Your task to perform on an android device: change timer sound Image 0: 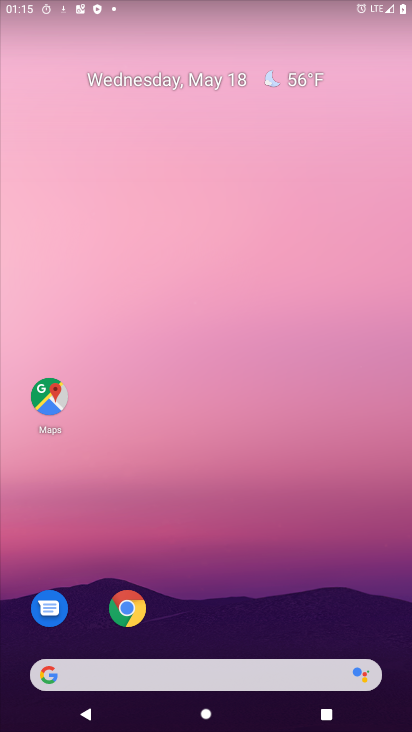
Step 0: drag from (271, 692) to (335, 160)
Your task to perform on an android device: change timer sound Image 1: 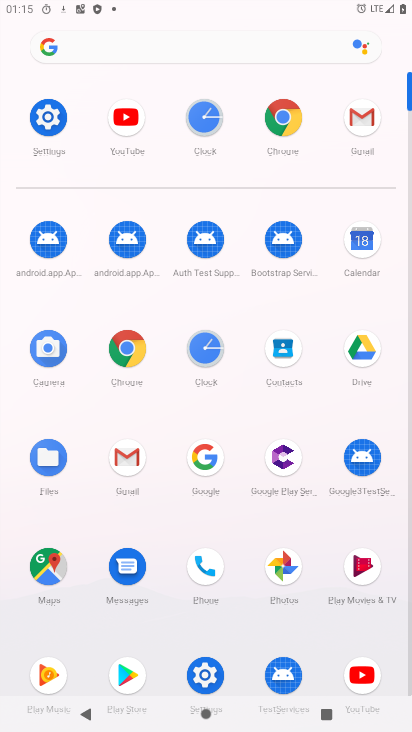
Step 1: click (216, 348)
Your task to perform on an android device: change timer sound Image 2: 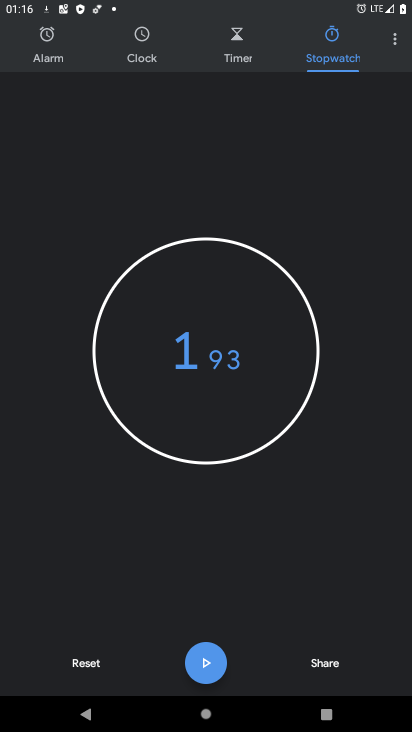
Step 2: click (386, 44)
Your task to perform on an android device: change timer sound Image 3: 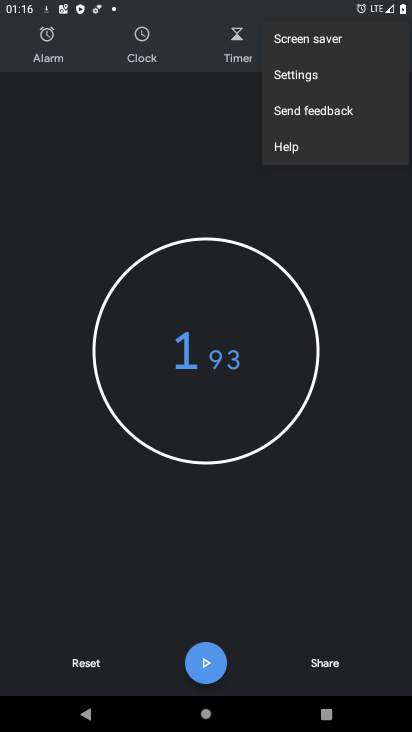
Step 3: click (307, 69)
Your task to perform on an android device: change timer sound Image 4: 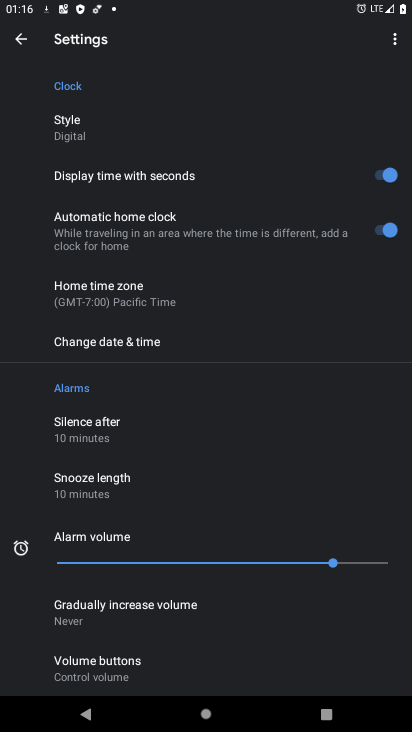
Step 4: drag from (152, 407) to (220, 225)
Your task to perform on an android device: change timer sound Image 5: 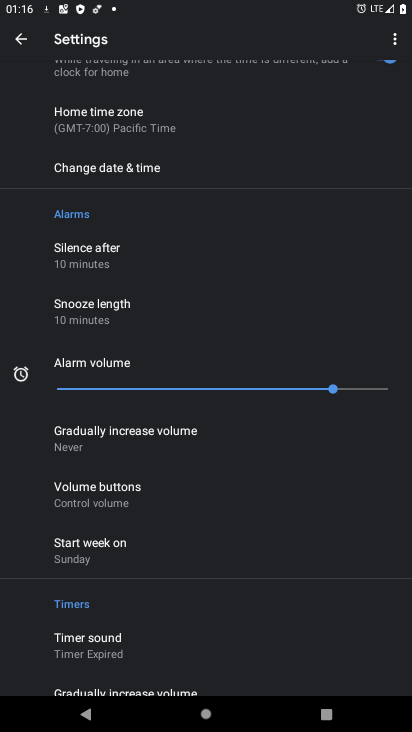
Step 5: drag from (160, 508) to (216, 396)
Your task to perform on an android device: change timer sound Image 6: 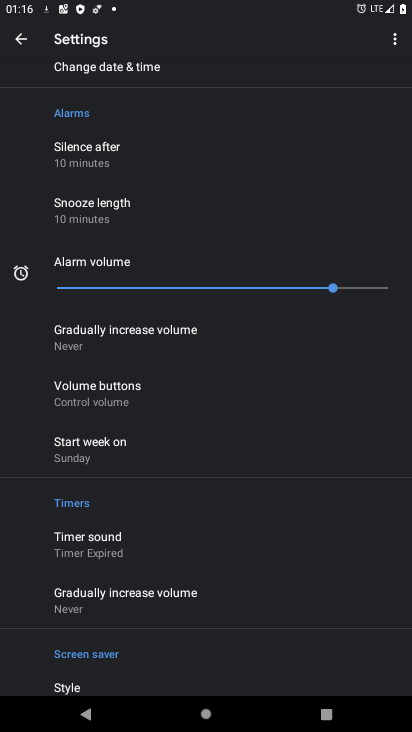
Step 6: click (96, 543)
Your task to perform on an android device: change timer sound Image 7: 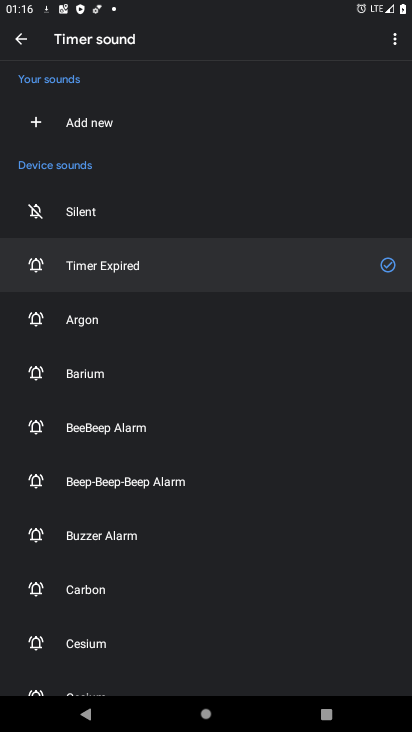
Step 7: click (85, 530)
Your task to perform on an android device: change timer sound Image 8: 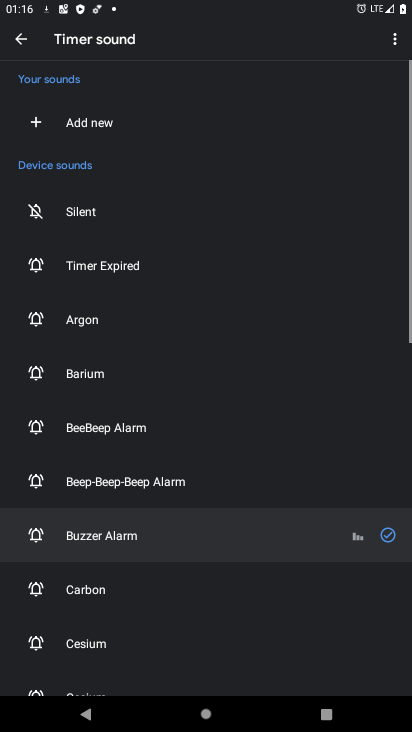
Step 8: task complete